Your task to perform on an android device: turn on bluetooth scan Image 0: 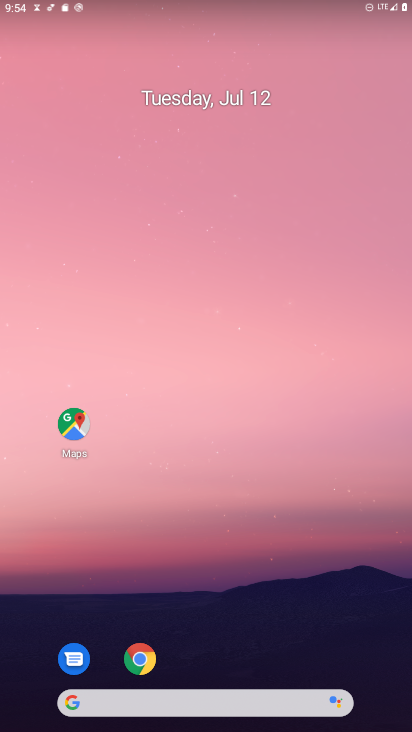
Step 0: drag from (178, 701) to (194, 128)
Your task to perform on an android device: turn on bluetooth scan Image 1: 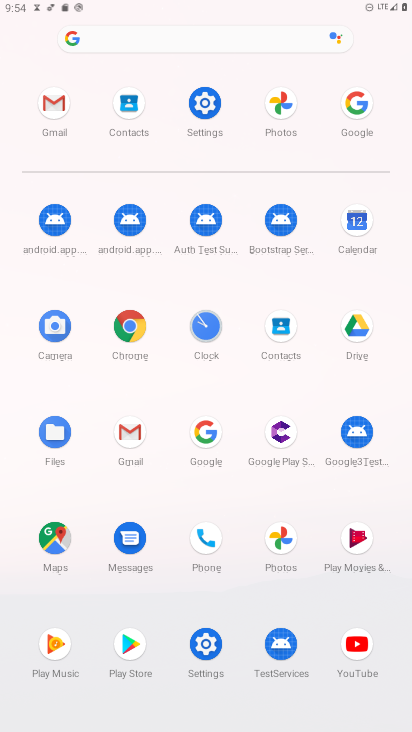
Step 1: click (206, 101)
Your task to perform on an android device: turn on bluetooth scan Image 2: 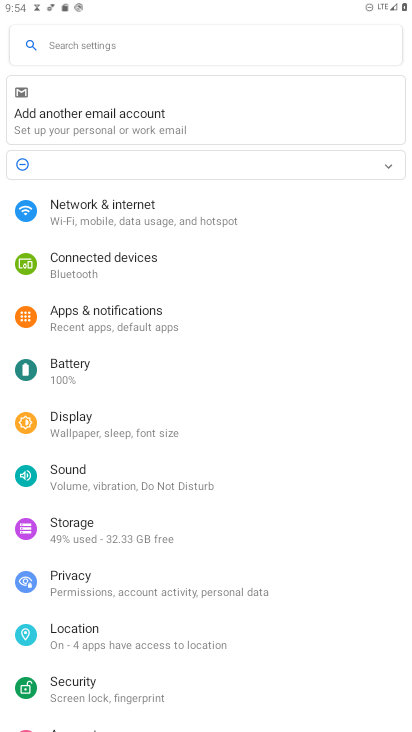
Step 2: click (79, 635)
Your task to perform on an android device: turn on bluetooth scan Image 3: 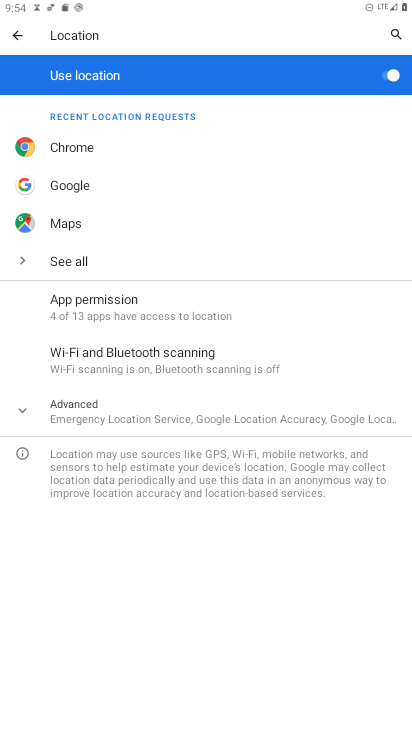
Step 3: click (120, 364)
Your task to perform on an android device: turn on bluetooth scan Image 4: 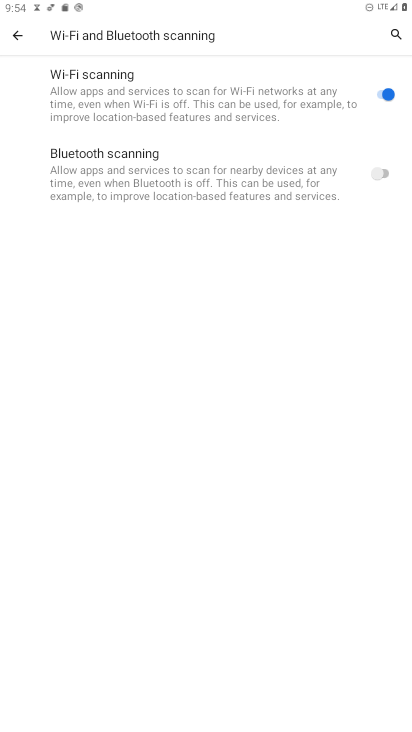
Step 4: click (379, 172)
Your task to perform on an android device: turn on bluetooth scan Image 5: 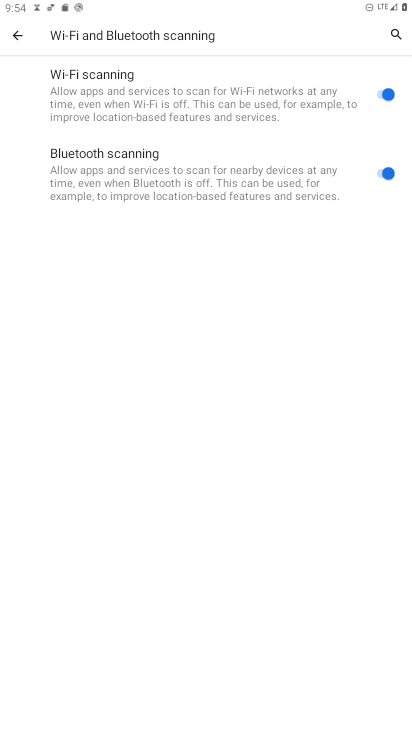
Step 5: task complete